Your task to perform on an android device: empty trash in google photos Image 0: 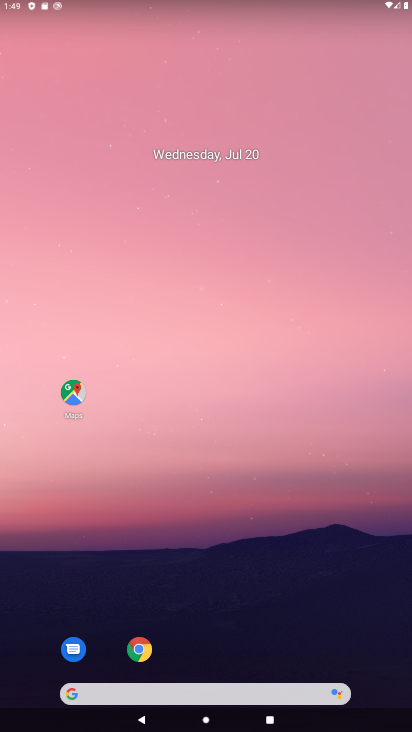
Step 0: drag from (219, 613) to (214, 230)
Your task to perform on an android device: empty trash in google photos Image 1: 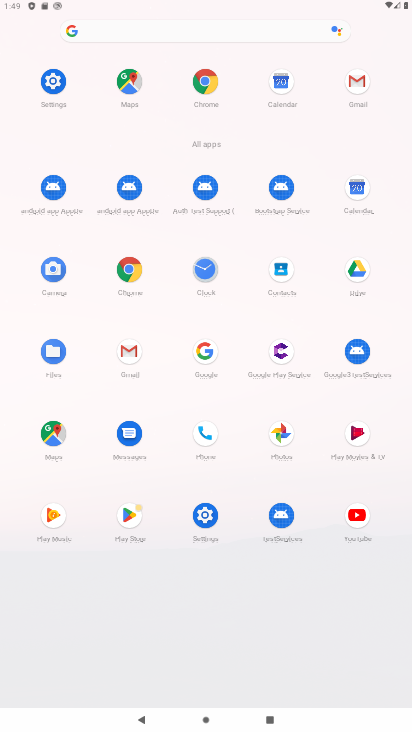
Step 1: click (275, 431)
Your task to perform on an android device: empty trash in google photos Image 2: 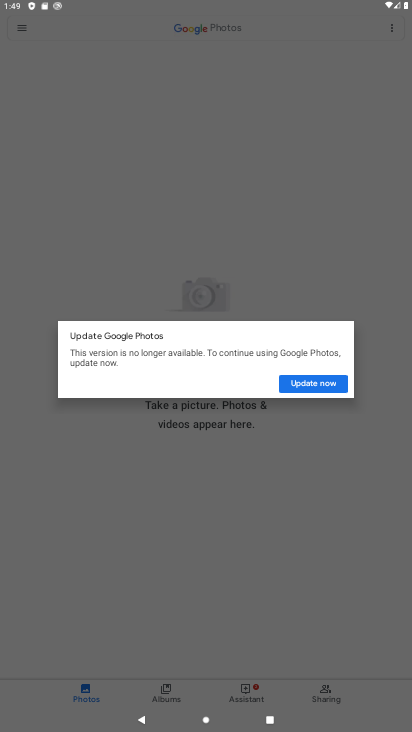
Step 2: task complete